Your task to perform on an android device: Clear all items from cart on ebay.com. Search for razer naga on ebay.com, select the first entry, add it to the cart, then select checkout. Image 0: 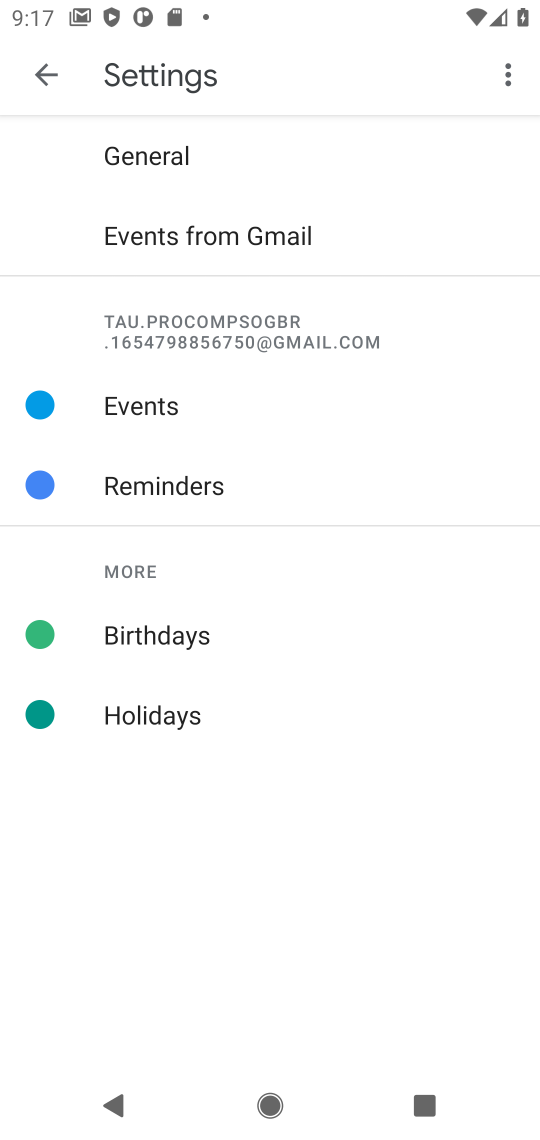
Step 0: press home button
Your task to perform on an android device: Clear all items from cart on ebay.com. Search for razer naga on ebay.com, select the first entry, add it to the cart, then select checkout. Image 1: 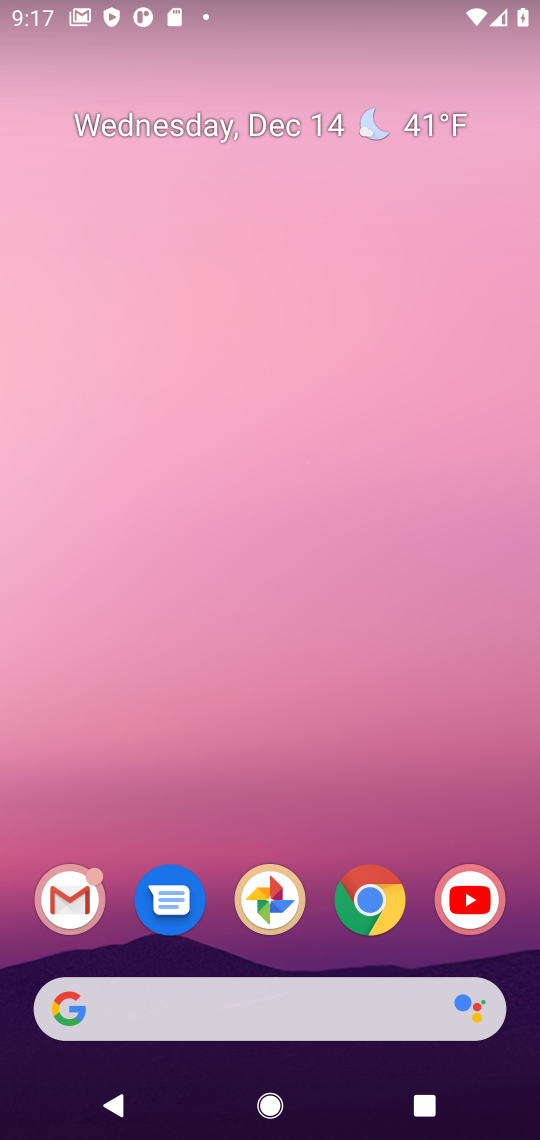
Step 1: click (364, 902)
Your task to perform on an android device: Clear all items from cart on ebay.com. Search for razer naga on ebay.com, select the first entry, add it to the cart, then select checkout. Image 2: 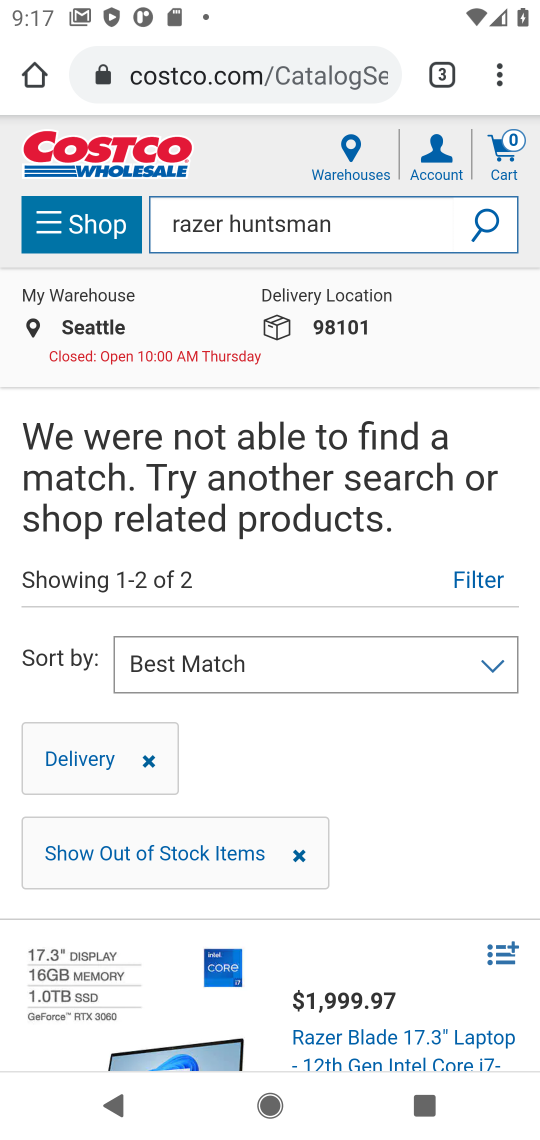
Step 2: click (221, 82)
Your task to perform on an android device: Clear all items from cart on ebay.com. Search for razer naga on ebay.com, select the first entry, add it to the cart, then select checkout. Image 3: 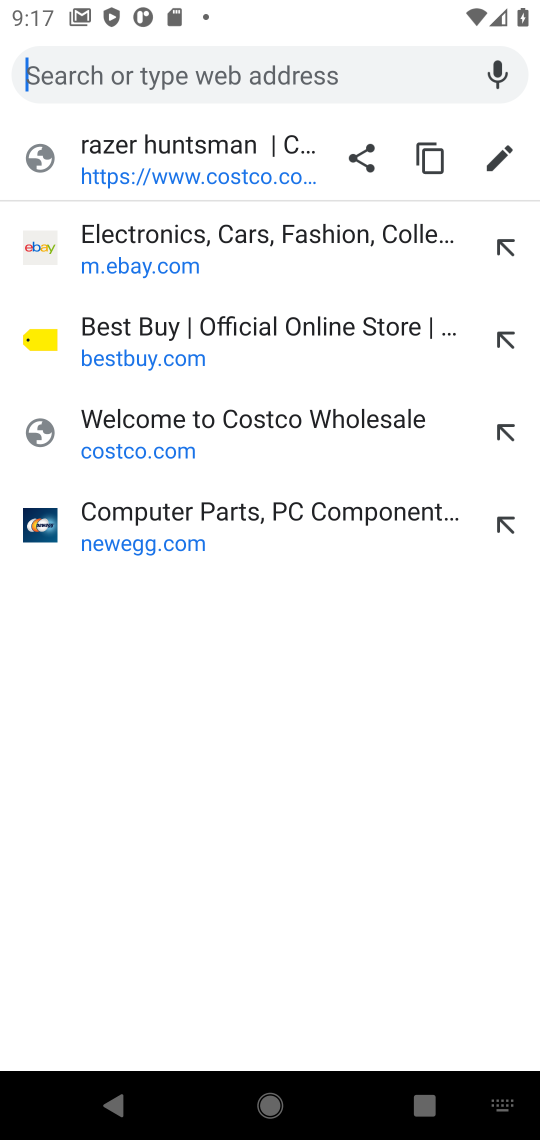
Step 3: click (130, 253)
Your task to perform on an android device: Clear all items from cart on ebay.com. Search for razer naga on ebay.com, select the first entry, add it to the cart, then select checkout. Image 4: 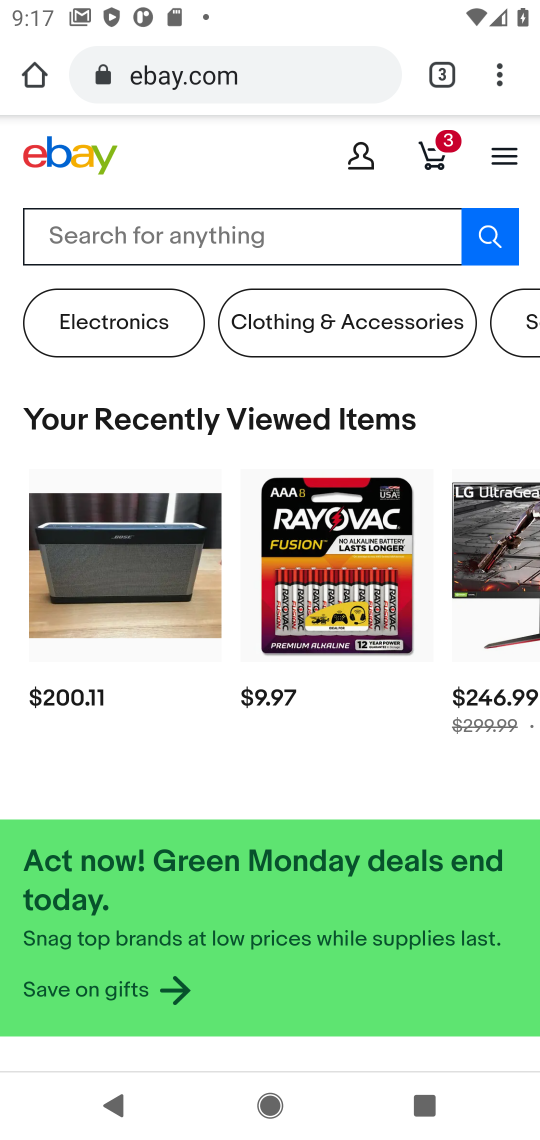
Step 4: click (432, 150)
Your task to perform on an android device: Clear all items from cart on ebay.com. Search for razer naga on ebay.com, select the first entry, add it to the cart, then select checkout. Image 5: 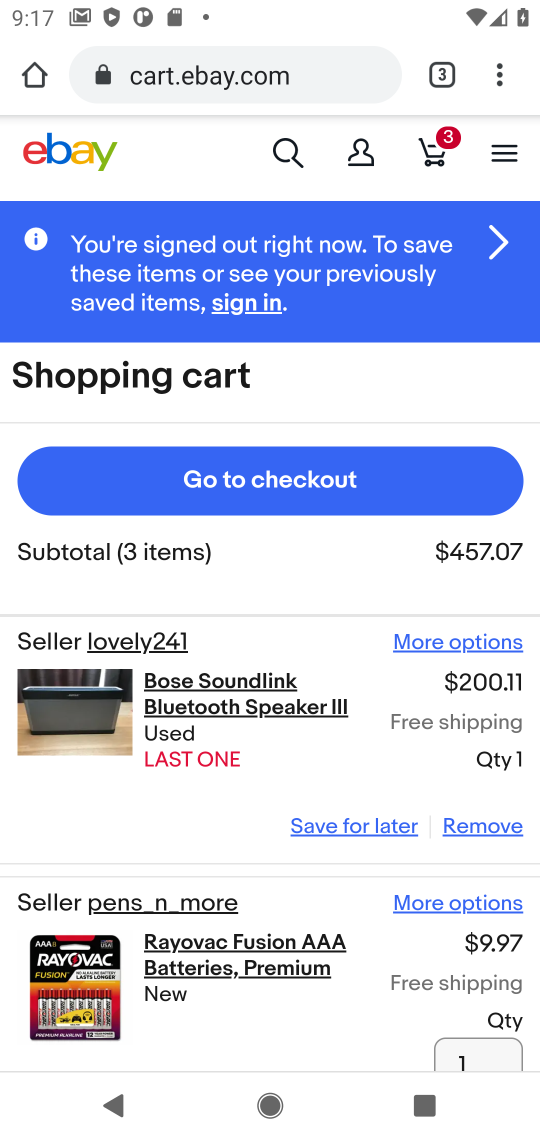
Step 5: click (465, 828)
Your task to perform on an android device: Clear all items from cart on ebay.com. Search for razer naga on ebay.com, select the first entry, add it to the cart, then select checkout. Image 6: 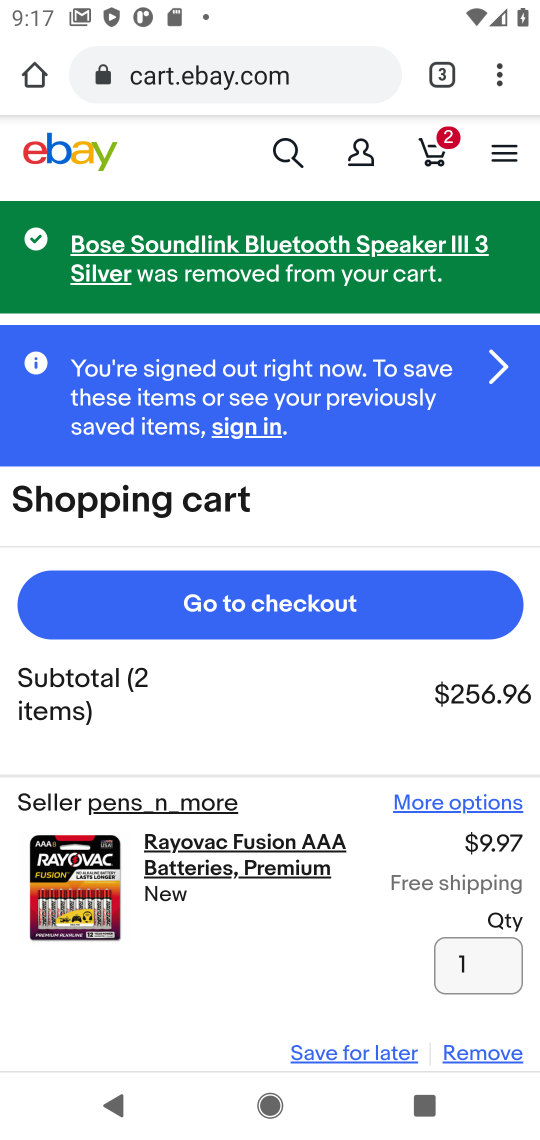
Step 6: click (480, 1056)
Your task to perform on an android device: Clear all items from cart on ebay.com. Search for razer naga on ebay.com, select the first entry, add it to the cart, then select checkout. Image 7: 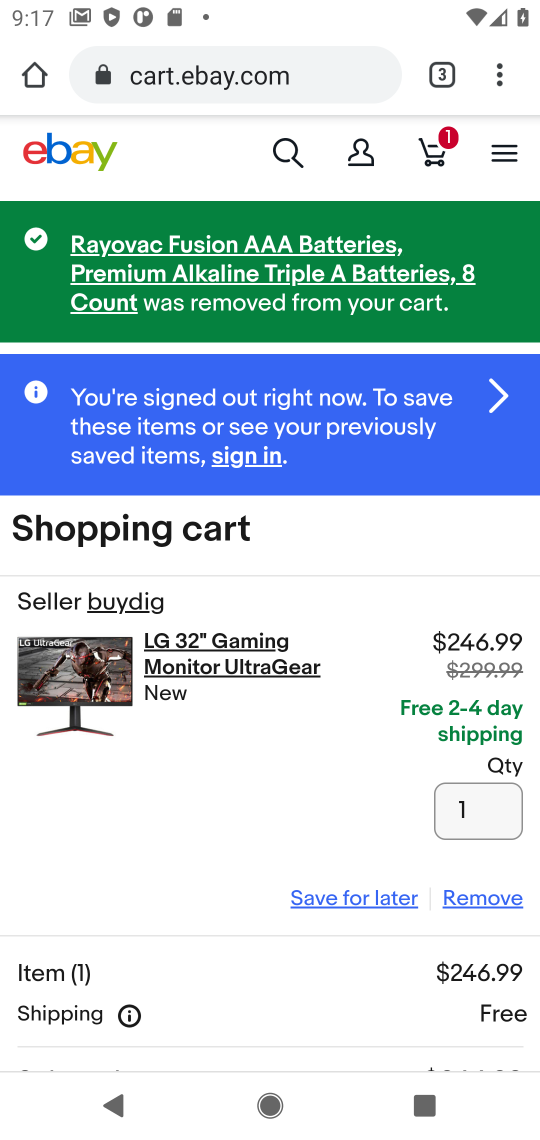
Step 7: click (494, 896)
Your task to perform on an android device: Clear all items from cart on ebay.com. Search for razer naga on ebay.com, select the first entry, add it to the cart, then select checkout. Image 8: 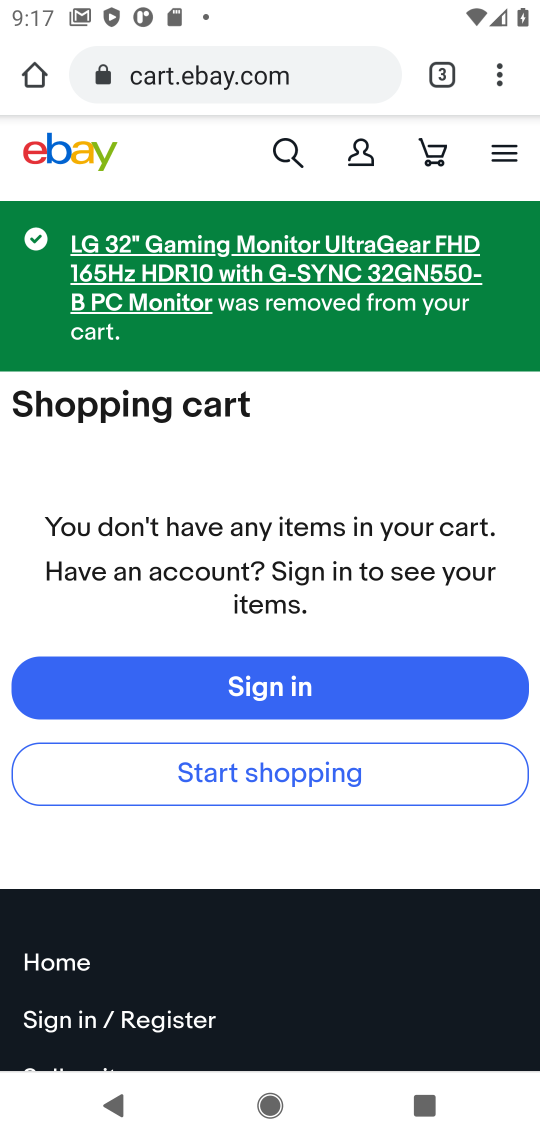
Step 8: click (280, 154)
Your task to perform on an android device: Clear all items from cart on ebay.com. Search for razer naga on ebay.com, select the first entry, add it to the cart, then select checkout. Image 9: 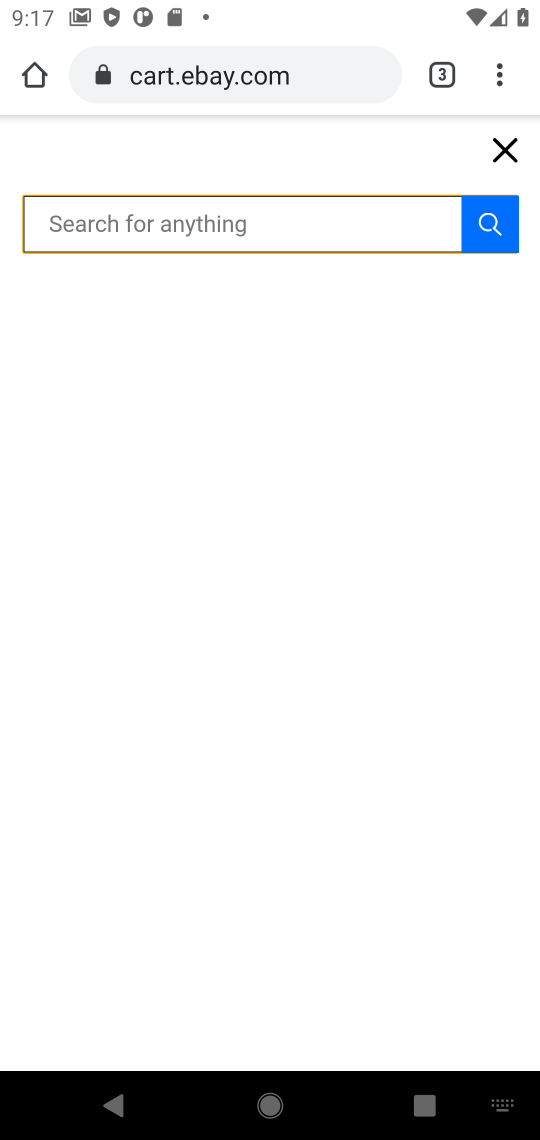
Step 9: type " razer naga"
Your task to perform on an android device: Clear all items from cart on ebay.com. Search for razer naga on ebay.com, select the first entry, add it to the cart, then select checkout. Image 10: 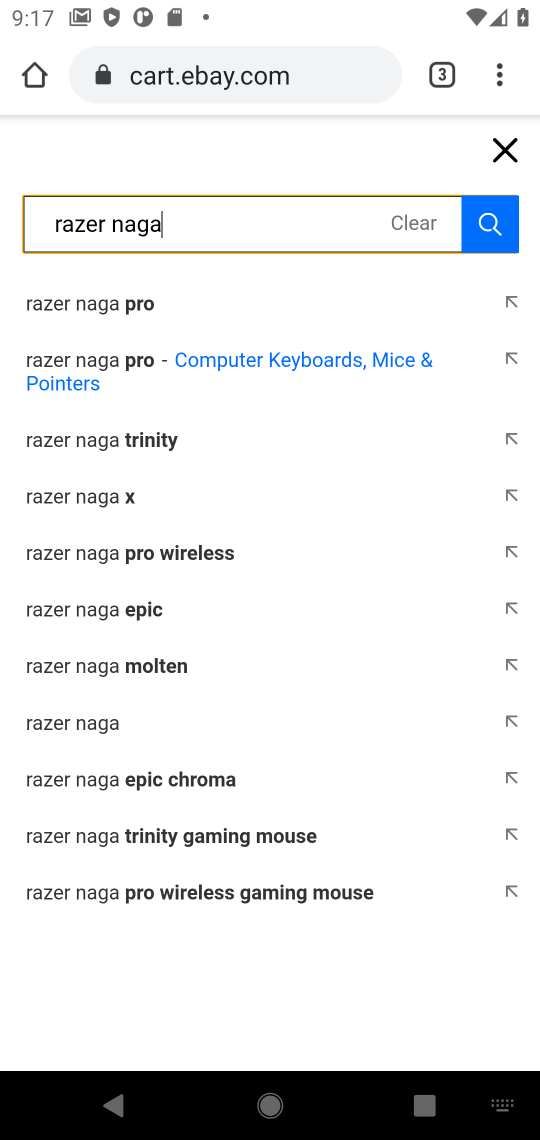
Step 10: click (63, 734)
Your task to perform on an android device: Clear all items from cart on ebay.com. Search for razer naga on ebay.com, select the first entry, add it to the cart, then select checkout. Image 11: 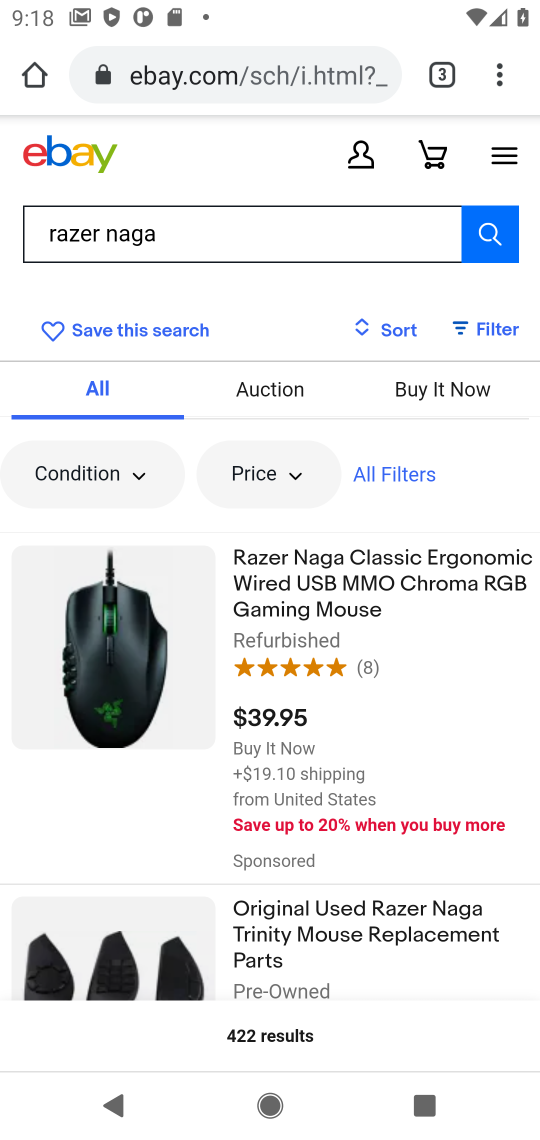
Step 11: click (269, 626)
Your task to perform on an android device: Clear all items from cart on ebay.com. Search for razer naga on ebay.com, select the first entry, add it to the cart, then select checkout. Image 12: 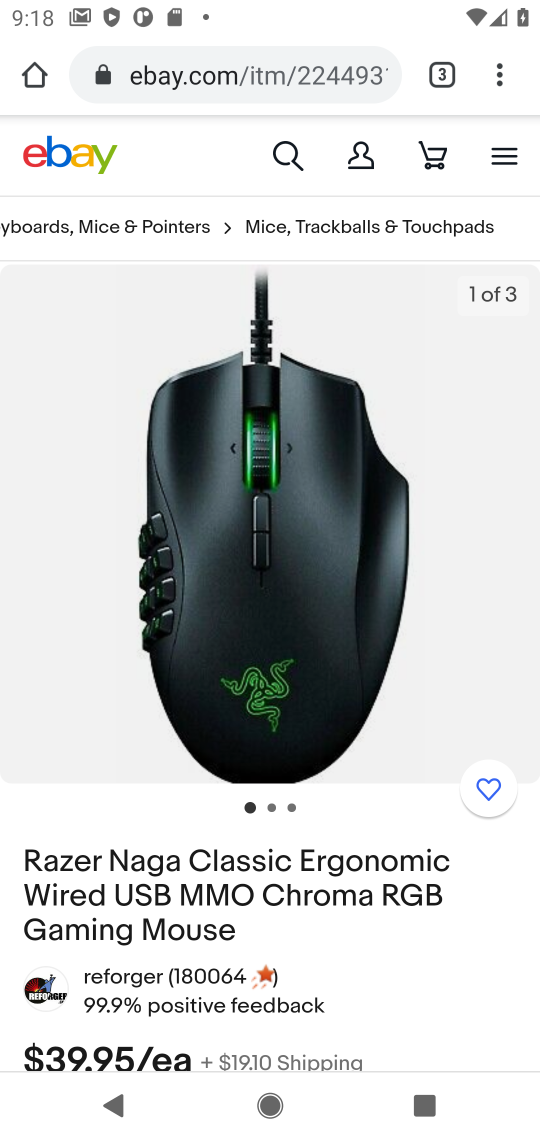
Step 12: drag from (308, 902) to (345, 561)
Your task to perform on an android device: Clear all items from cart on ebay.com. Search for razer naga on ebay.com, select the first entry, add it to the cart, then select checkout. Image 13: 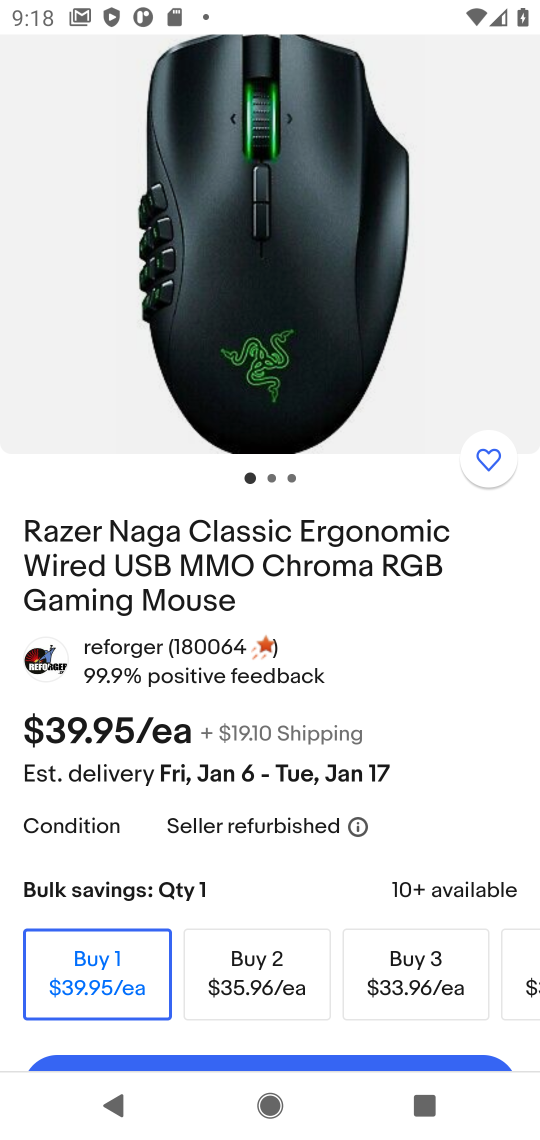
Step 13: drag from (288, 872) to (291, 480)
Your task to perform on an android device: Clear all items from cart on ebay.com. Search for razer naga on ebay.com, select the first entry, add it to the cart, then select checkout. Image 14: 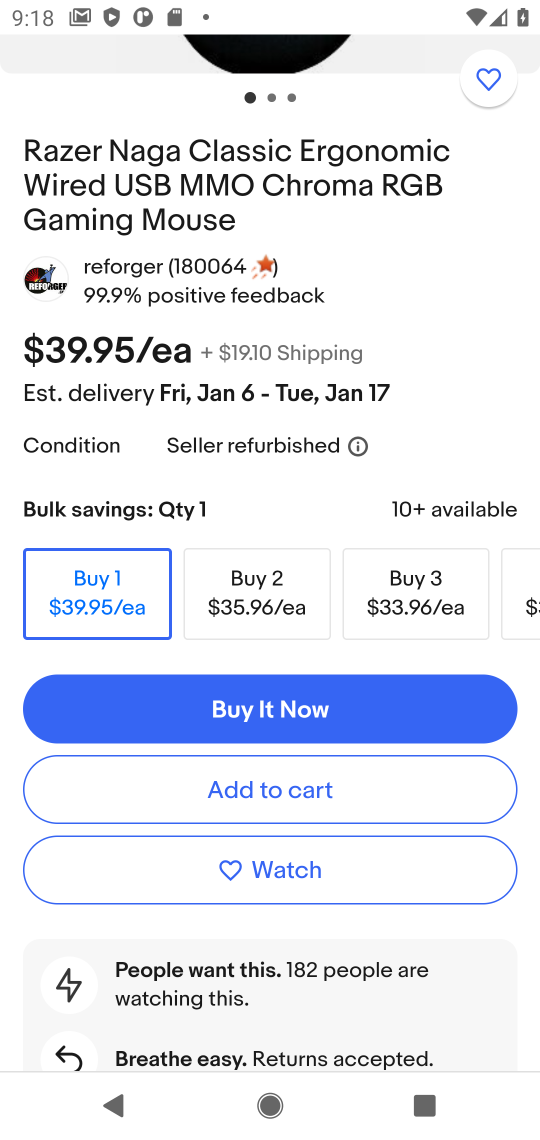
Step 14: click (239, 784)
Your task to perform on an android device: Clear all items from cart on ebay.com. Search for razer naga on ebay.com, select the first entry, add it to the cart, then select checkout. Image 15: 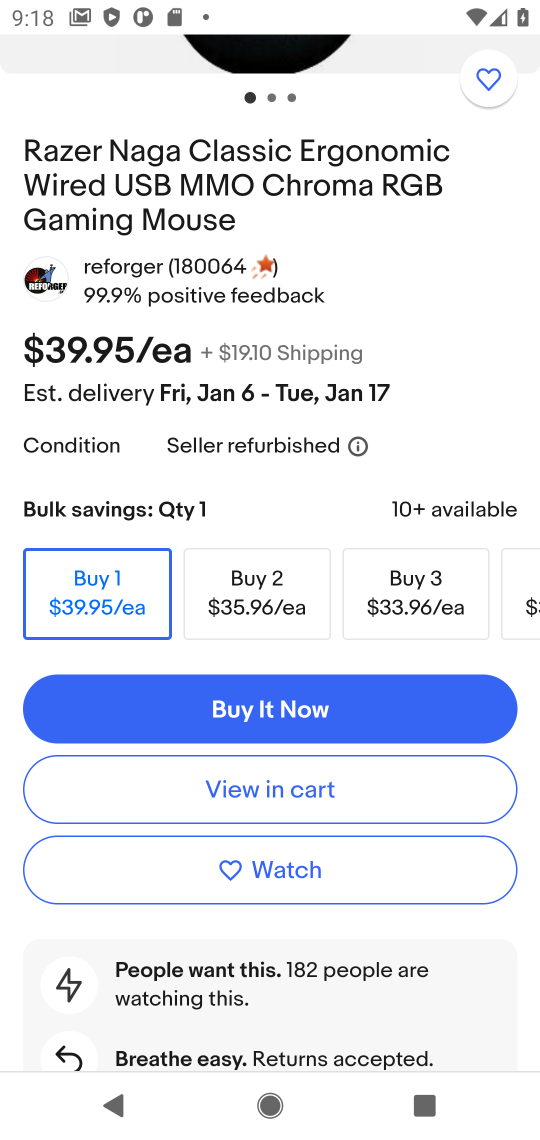
Step 15: click (240, 783)
Your task to perform on an android device: Clear all items from cart on ebay.com. Search for razer naga on ebay.com, select the first entry, add it to the cart, then select checkout. Image 16: 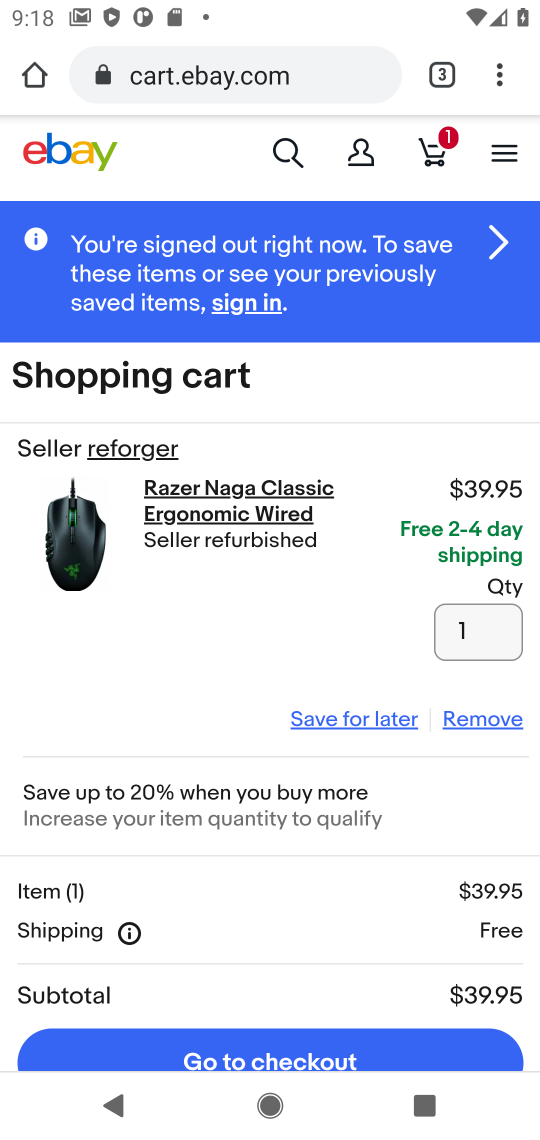
Step 16: click (239, 1050)
Your task to perform on an android device: Clear all items from cart on ebay.com. Search for razer naga on ebay.com, select the first entry, add it to the cart, then select checkout. Image 17: 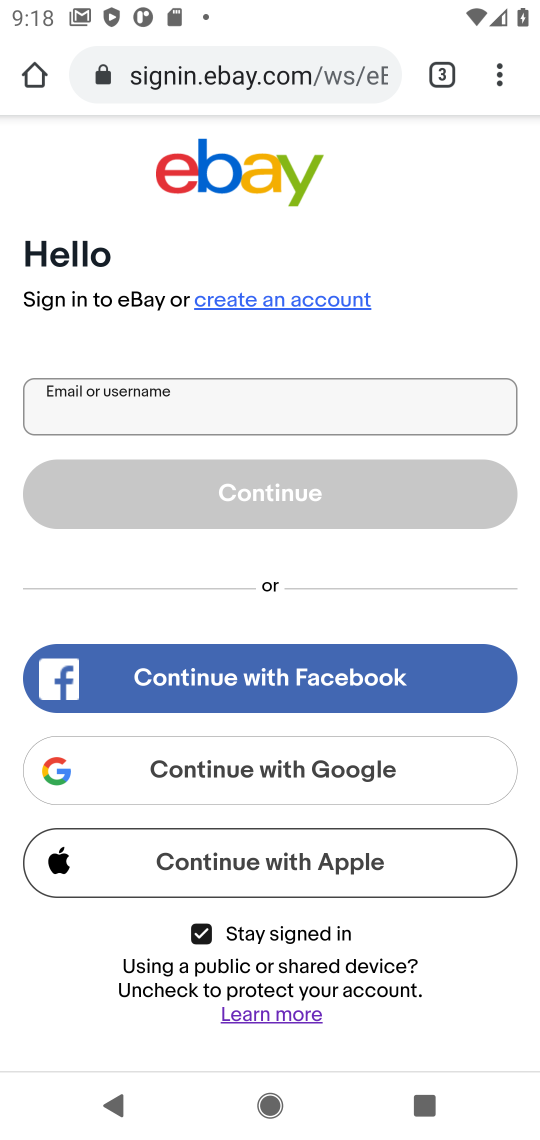
Step 17: task complete